Your task to perform on an android device: open sync settings in chrome Image 0: 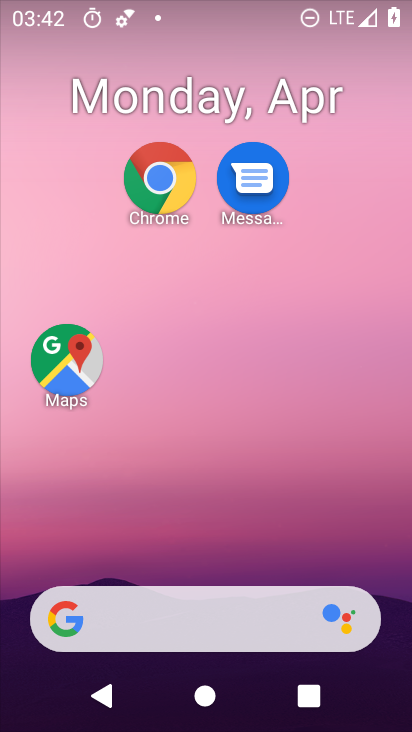
Step 0: drag from (246, 537) to (236, 4)
Your task to perform on an android device: open sync settings in chrome Image 1: 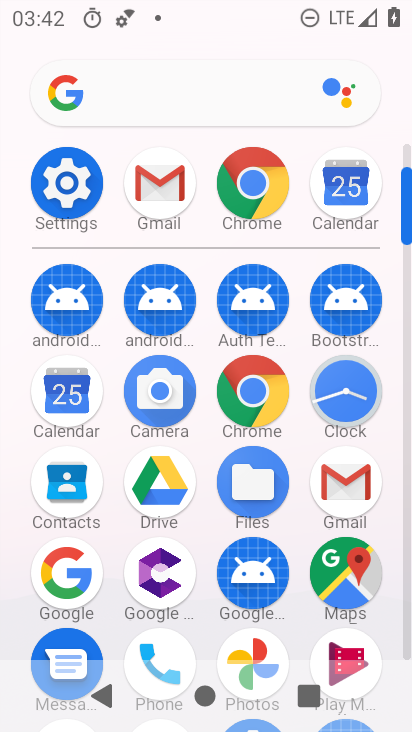
Step 1: click (247, 411)
Your task to perform on an android device: open sync settings in chrome Image 2: 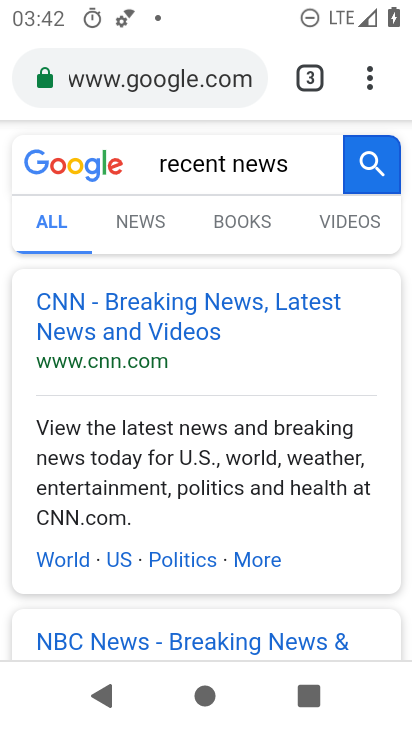
Step 2: click (364, 73)
Your task to perform on an android device: open sync settings in chrome Image 3: 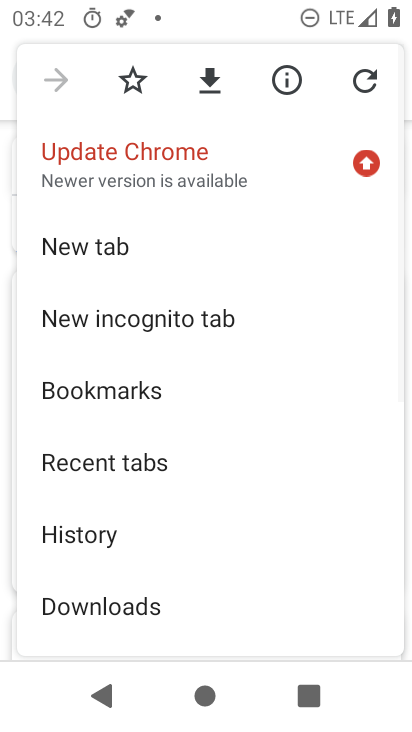
Step 3: drag from (190, 566) to (160, 71)
Your task to perform on an android device: open sync settings in chrome Image 4: 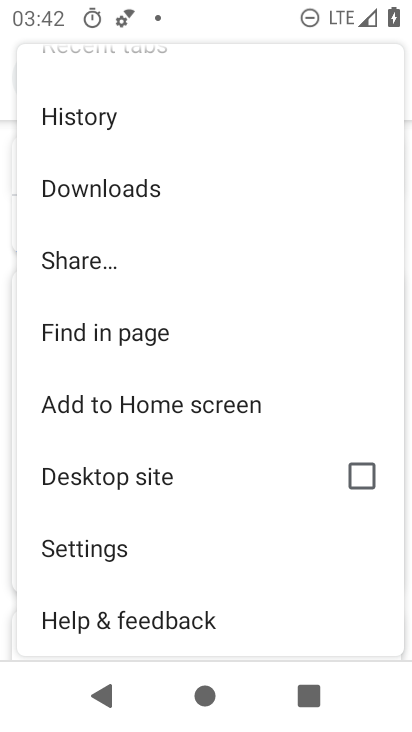
Step 4: click (138, 554)
Your task to perform on an android device: open sync settings in chrome Image 5: 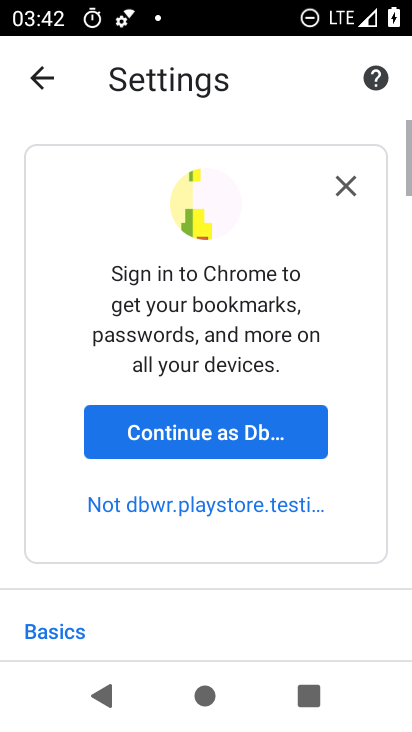
Step 5: drag from (219, 638) to (260, 55)
Your task to perform on an android device: open sync settings in chrome Image 6: 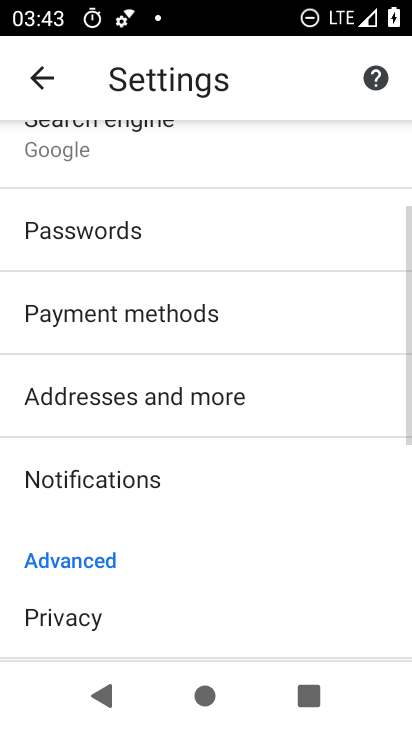
Step 6: drag from (236, 639) to (292, 143)
Your task to perform on an android device: open sync settings in chrome Image 7: 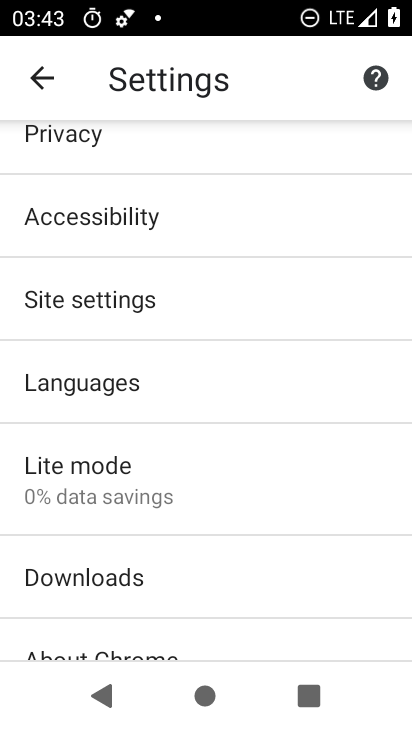
Step 7: drag from (152, 627) to (195, 218)
Your task to perform on an android device: open sync settings in chrome Image 8: 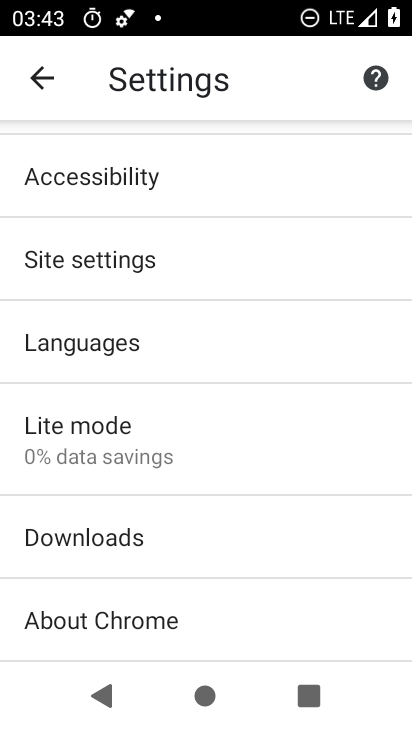
Step 8: click (170, 271)
Your task to perform on an android device: open sync settings in chrome Image 9: 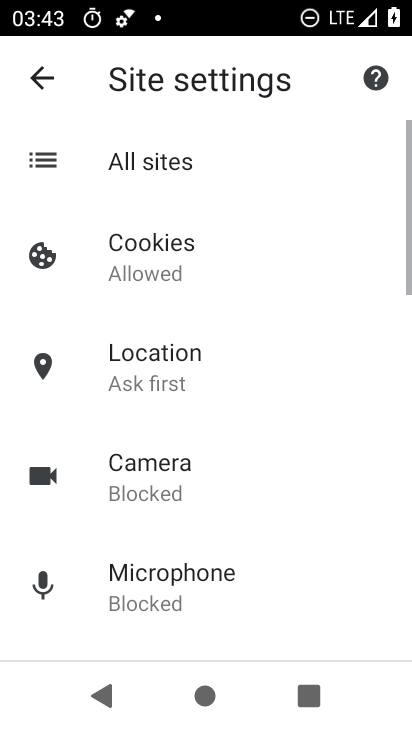
Step 9: drag from (227, 637) to (240, 63)
Your task to perform on an android device: open sync settings in chrome Image 10: 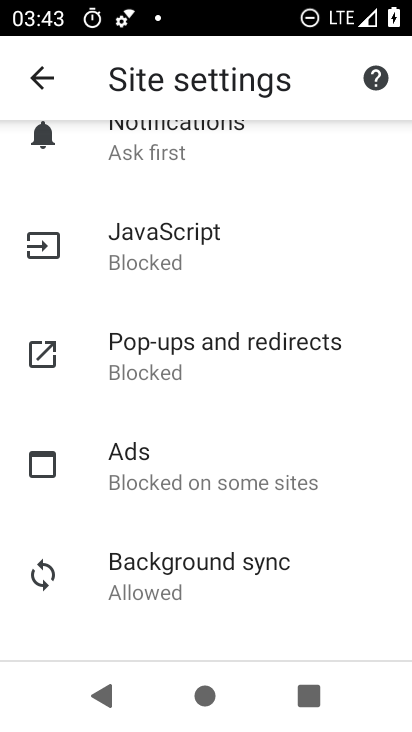
Step 10: drag from (236, 260) to (245, 643)
Your task to perform on an android device: open sync settings in chrome Image 11: 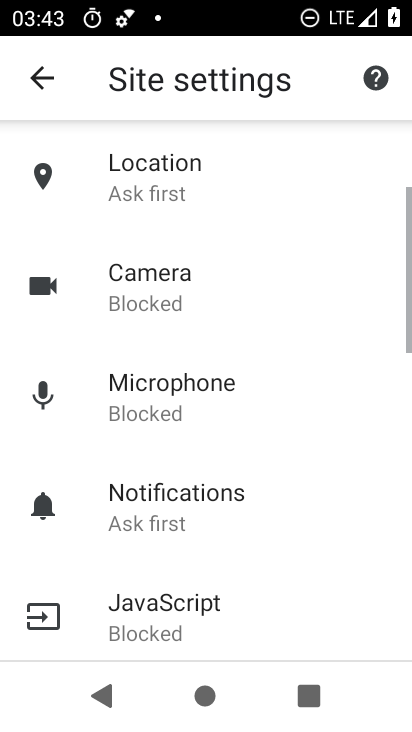
Step 11: drag from (253, 677) to (278, 137)
Your task to perform on an android device: open sync settings in chrome Image 12: 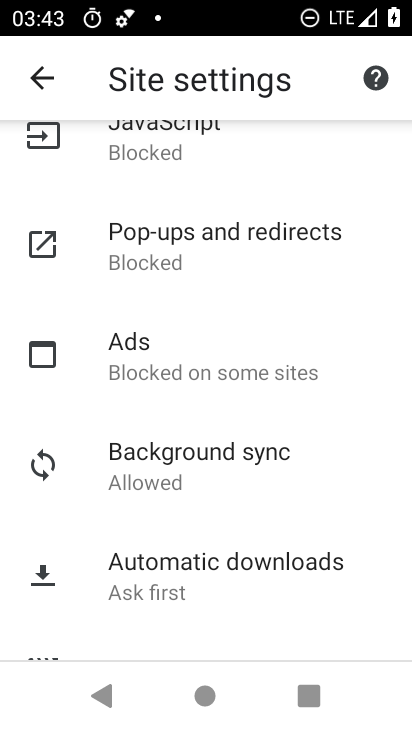
Step 12: click (239, 477)
Your task to perform on an android device: open sync settings in chrome Image 13: 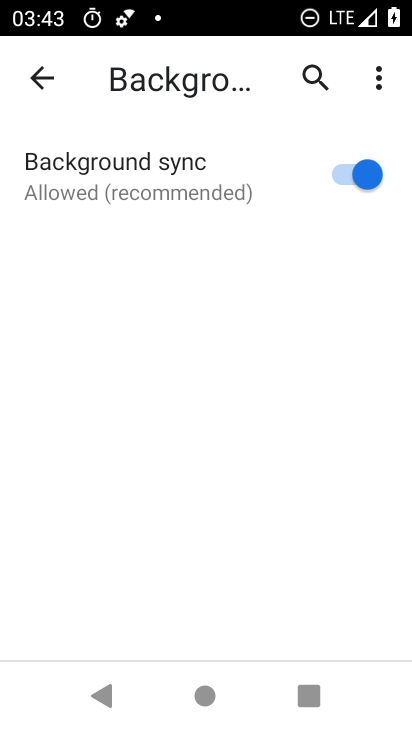
Step 13: task complete